Your task to perform on an android device: turn notification dots off Image 0: 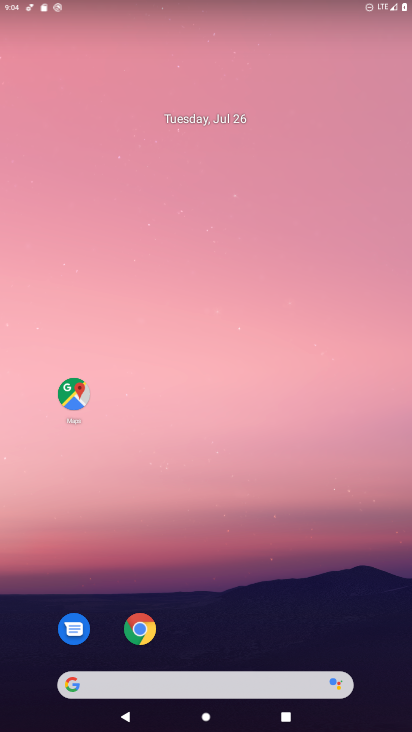
Step 0: press home button
Your task to perform on an android device: turn notification dots off Image 1: 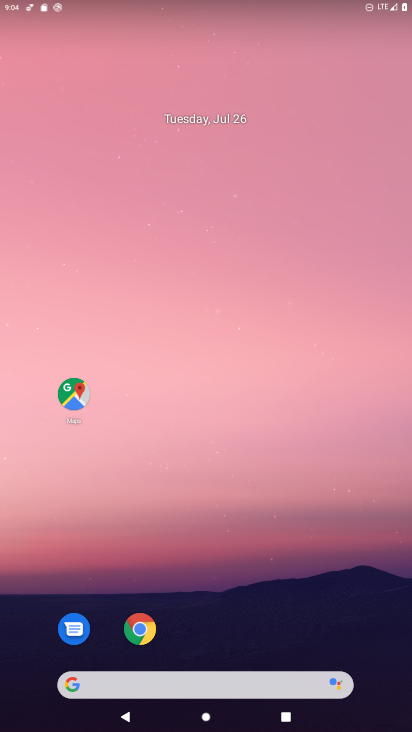
Step 1: drag from (270, 583) to (112, 2)
Your task to perform on an android device: turn notification dots off Image 2: 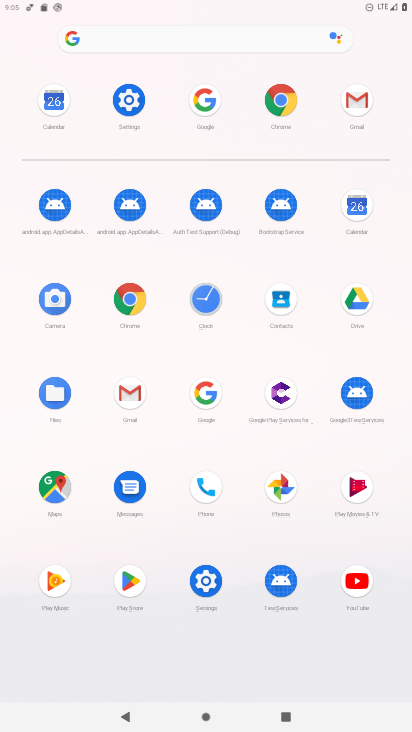
Step 2: click (186, 595)
Your task to perform on an android device: turn notification dots off Image 3: 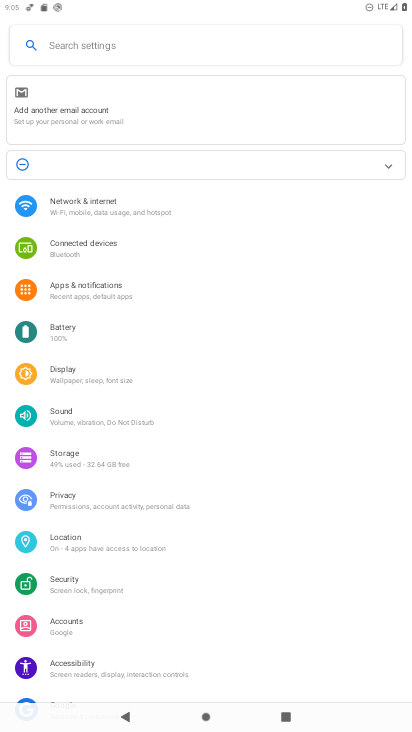
Step 3: click (141, 287)
Your task to perform on an android device: turn notification dots off Image 4: 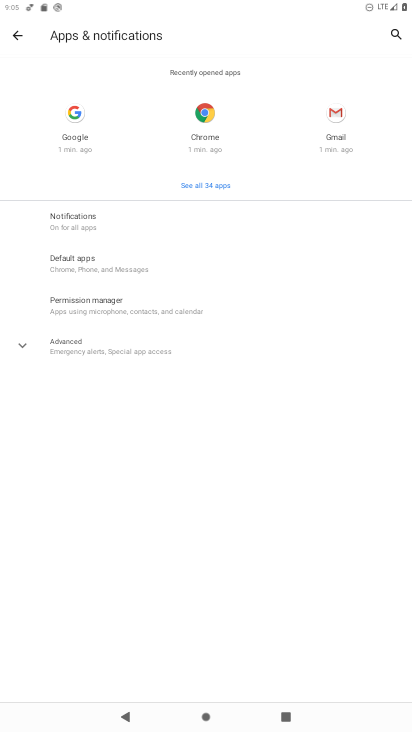
Step 4: click (80, 223)
Your task to perform on an android device: turn notification dots off Image 5: 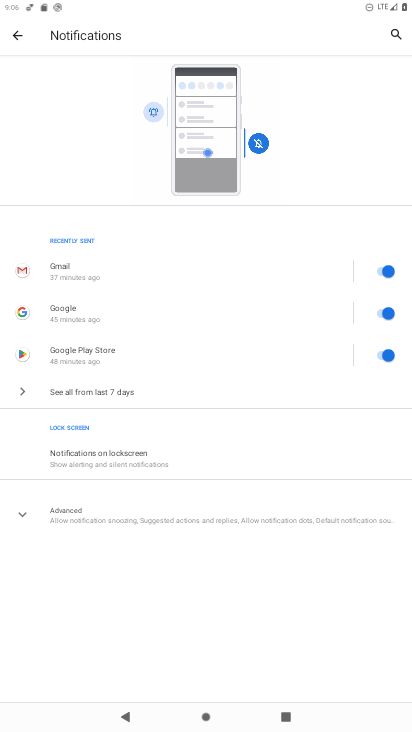
Step 5: click (95, 508)
Your task to perform on an android device: turn notification dots off Image 6: 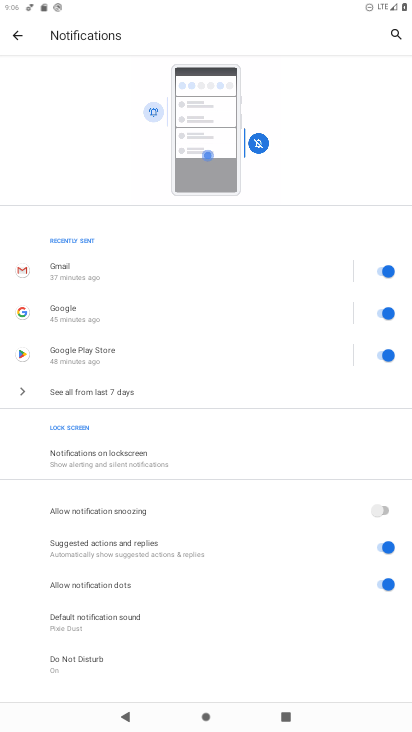
Step 6: click (59, 580)
Your task to perform on an android device: turn notification dots off Image 7: 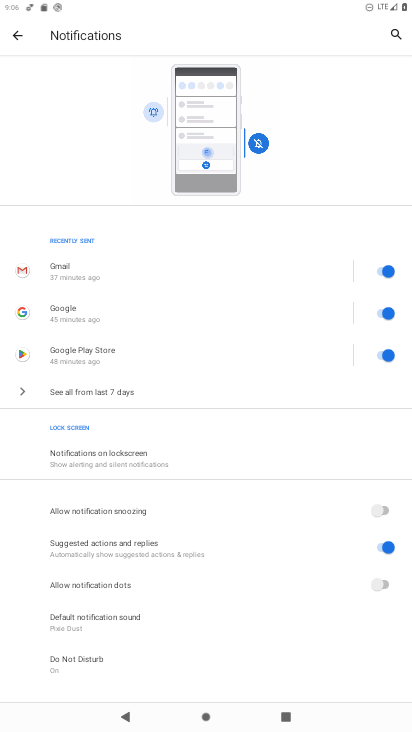
Step 7: task complete